Your task to perform on an android device: turn pop-ups on in chrome Image 0: 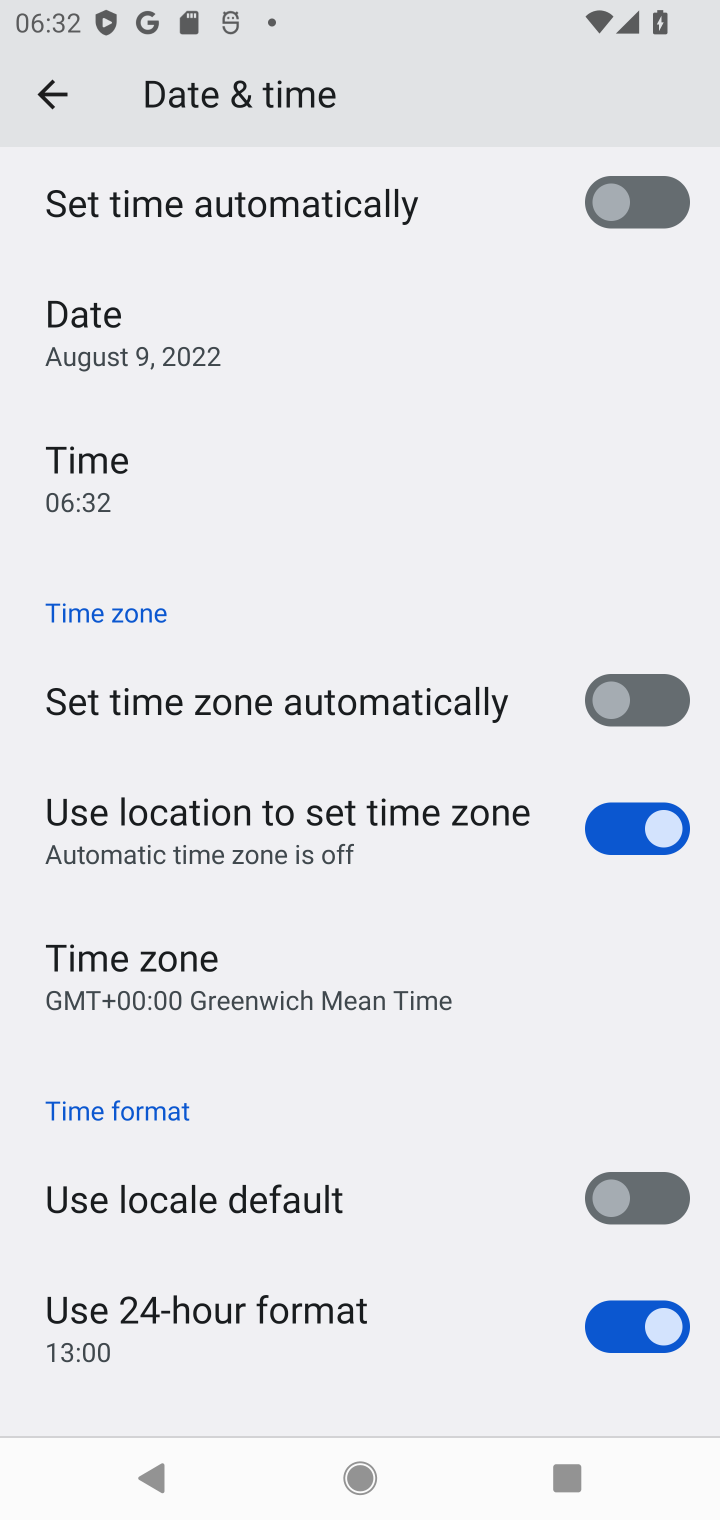
Step 0: press home button
Your task to perform on an android device: turn pop-ups on in chrome Image 1: 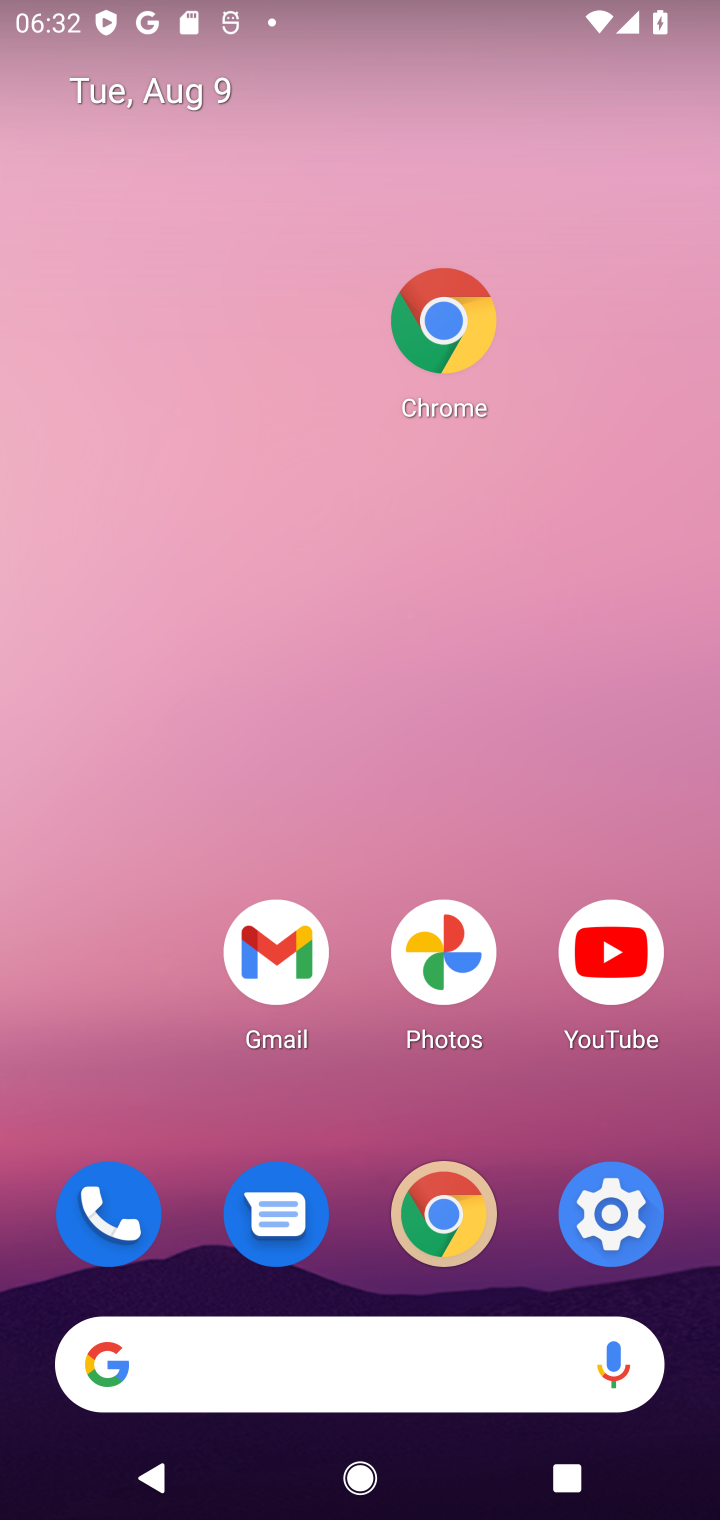
Step 1: click (444, 1205)
Your task to perform on an android device: turn pop-ups on in chrome Image 2: 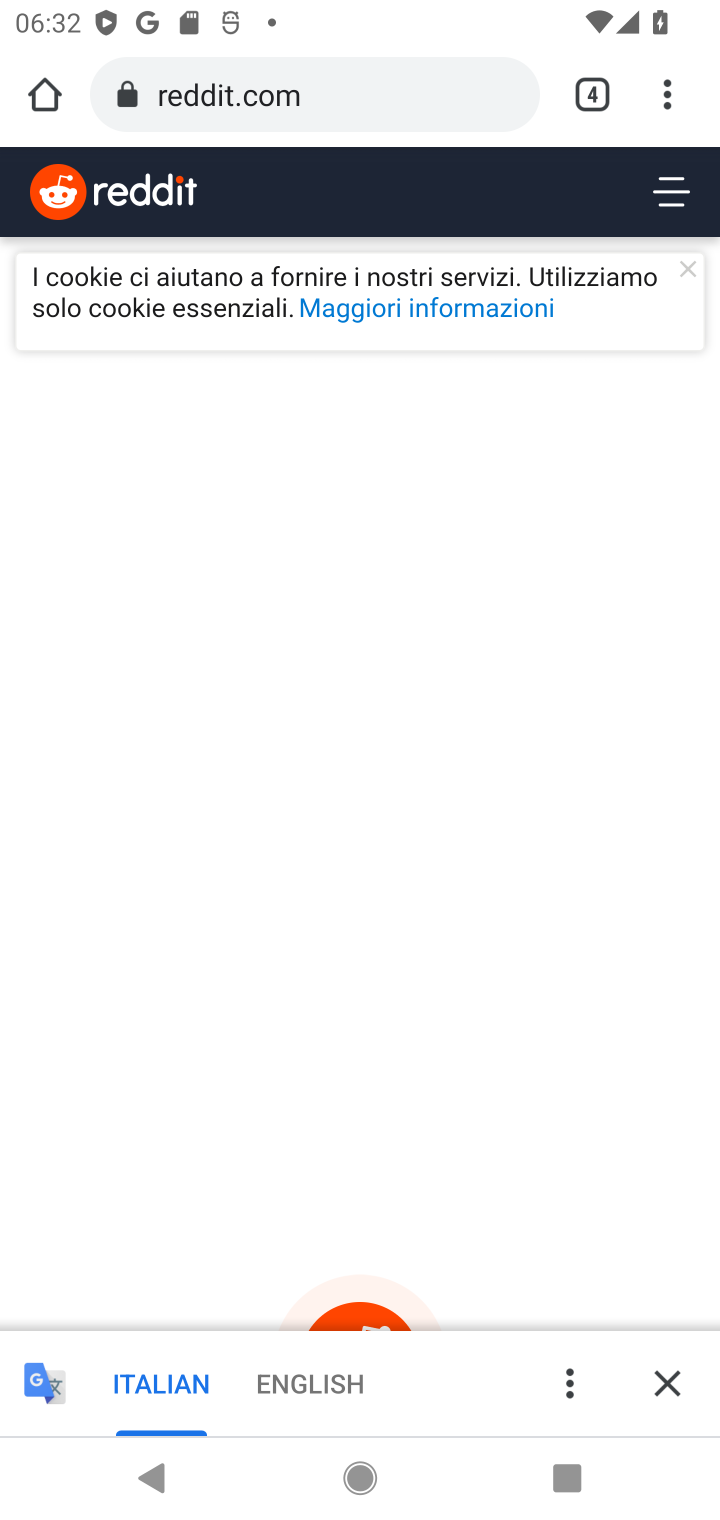
Step 2: click (664, 113)
Your task to perform on an android device: turn pop-ups on in chrome Image 3: 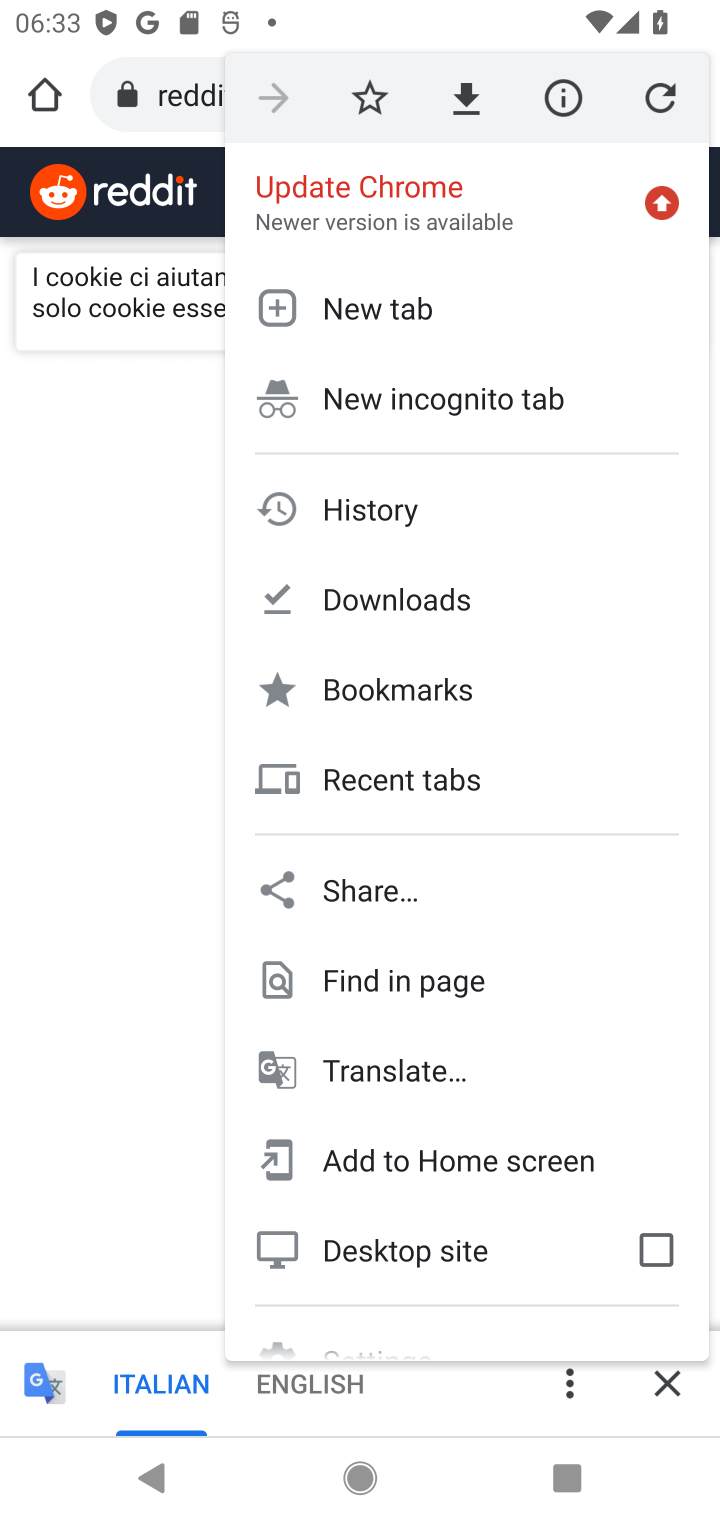
Step 3: drag from (383, 1066) to (361, 874)
Your task to perform on an android device: turn pop-ups on in chrome Image 4: 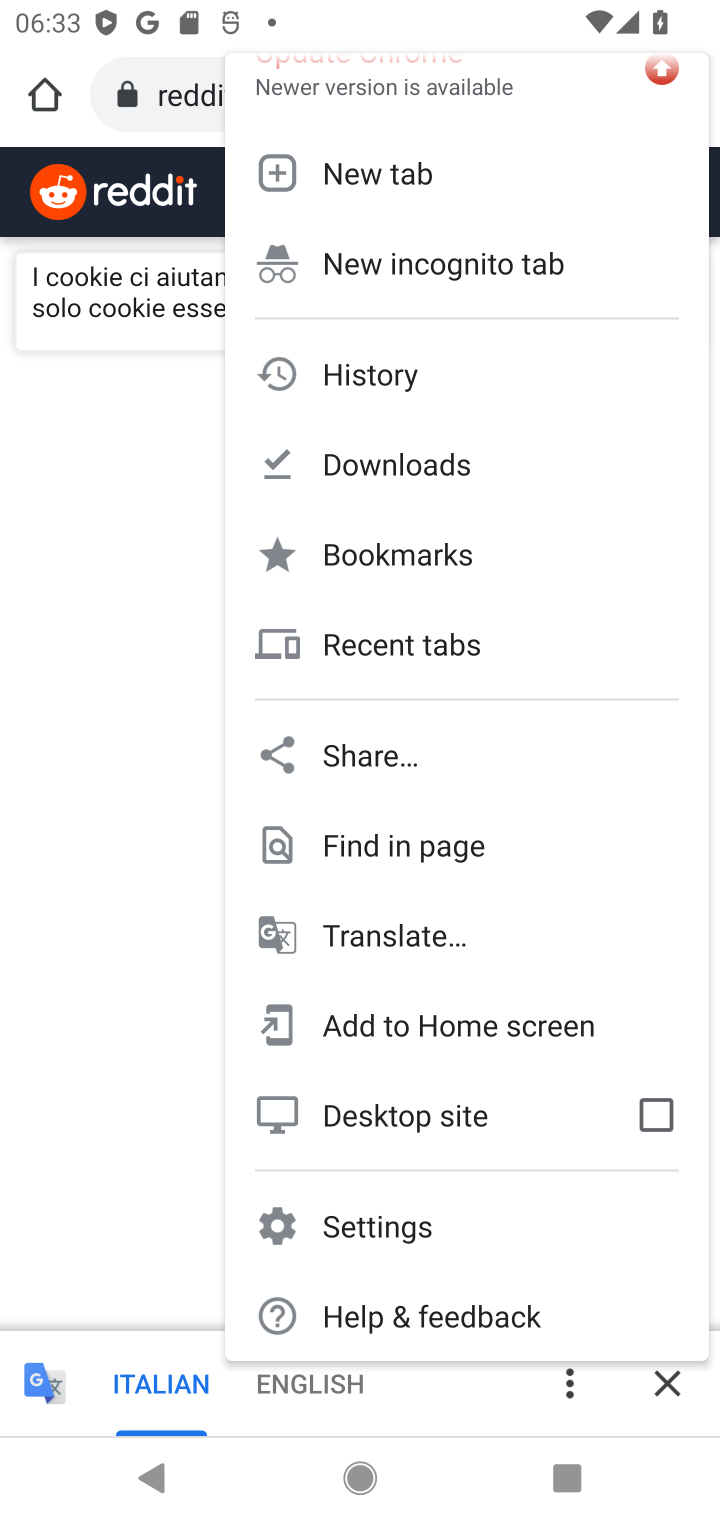
Step 4: click (392, 1222)
Your task to perform on an android device: turn pop-ups on in chrome Image 5: 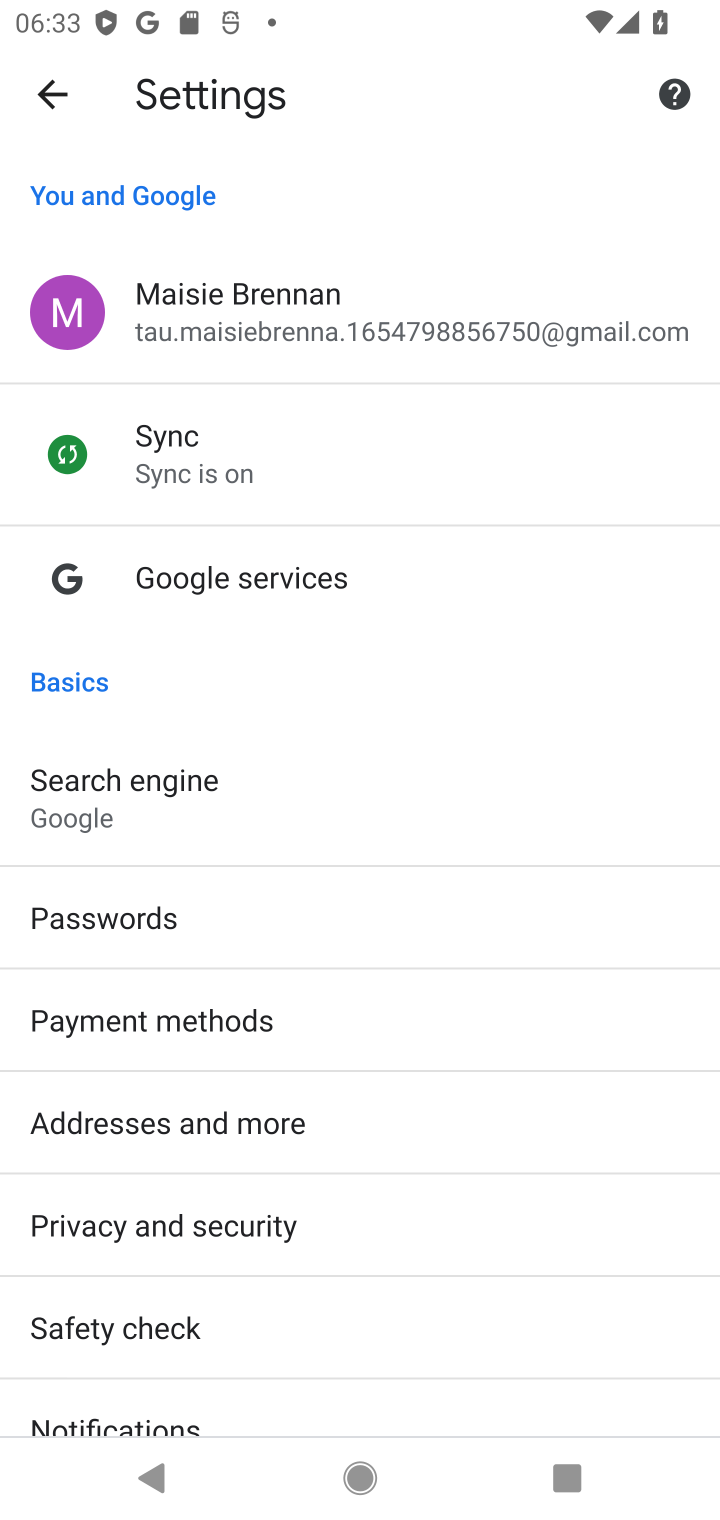
Step 5: drag from (184, 1233) to (184, 984)
Your task to perform on an android device: turn pop-ups on in chrome Image 6: 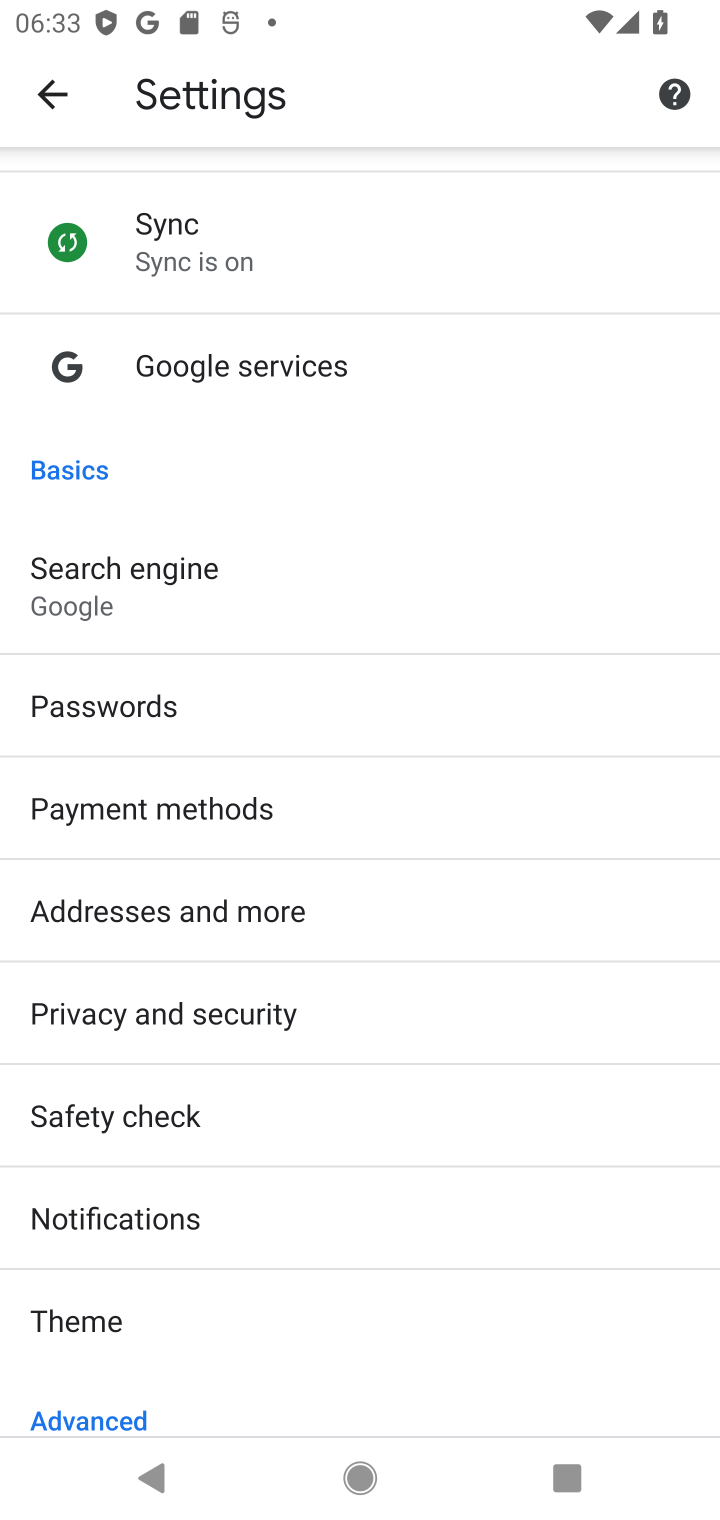
Step 6: drag from (138, 1287) to (223, 794)
Your task to perform on an android device: turn pop-ups on in chrome Image 7: 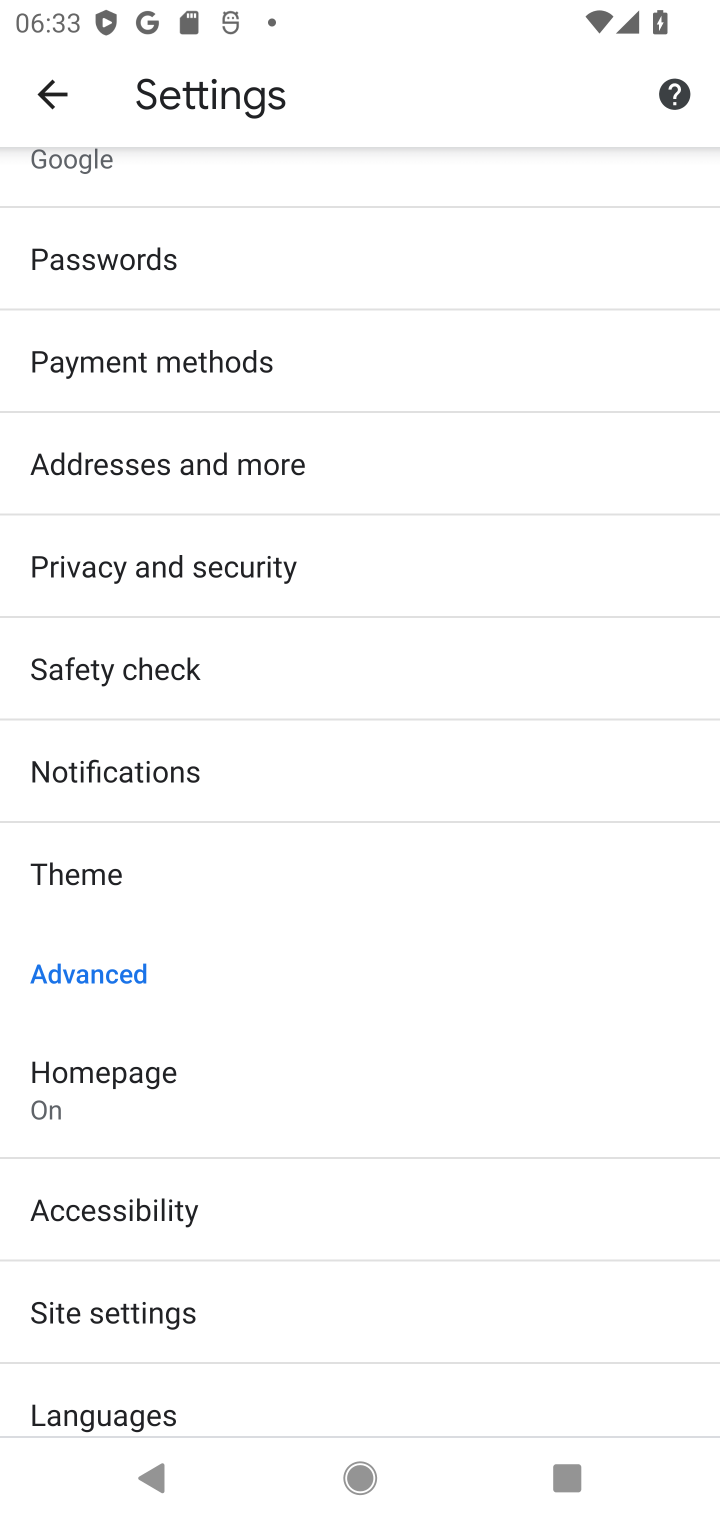
Step 7: click (144, 1226)
Your task to perform on an android device: turn pop-ups on in chrome Image 8: 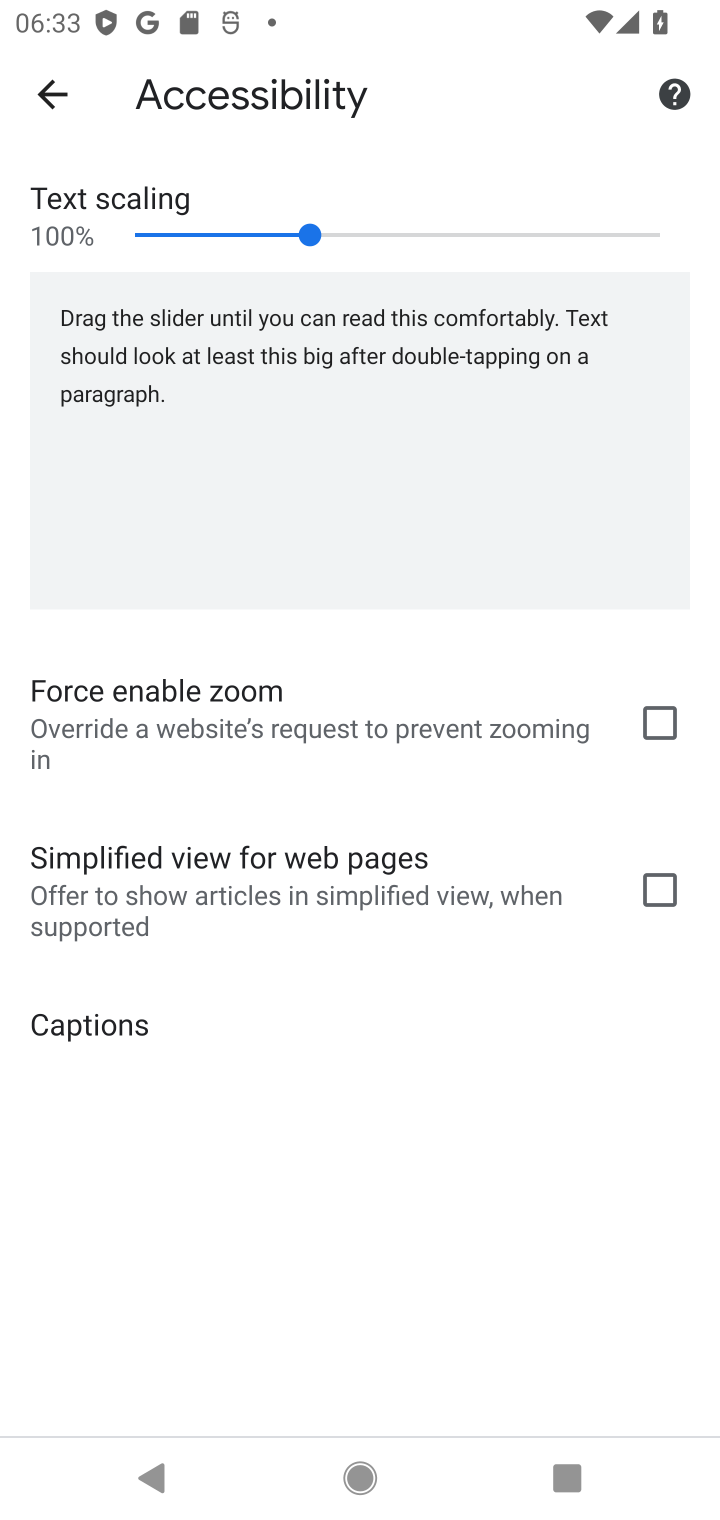
Step 8: drag from (246, 529) to (265, 889)
Your task to perform on an android device: turn pop-ups on in chrome Image 9: 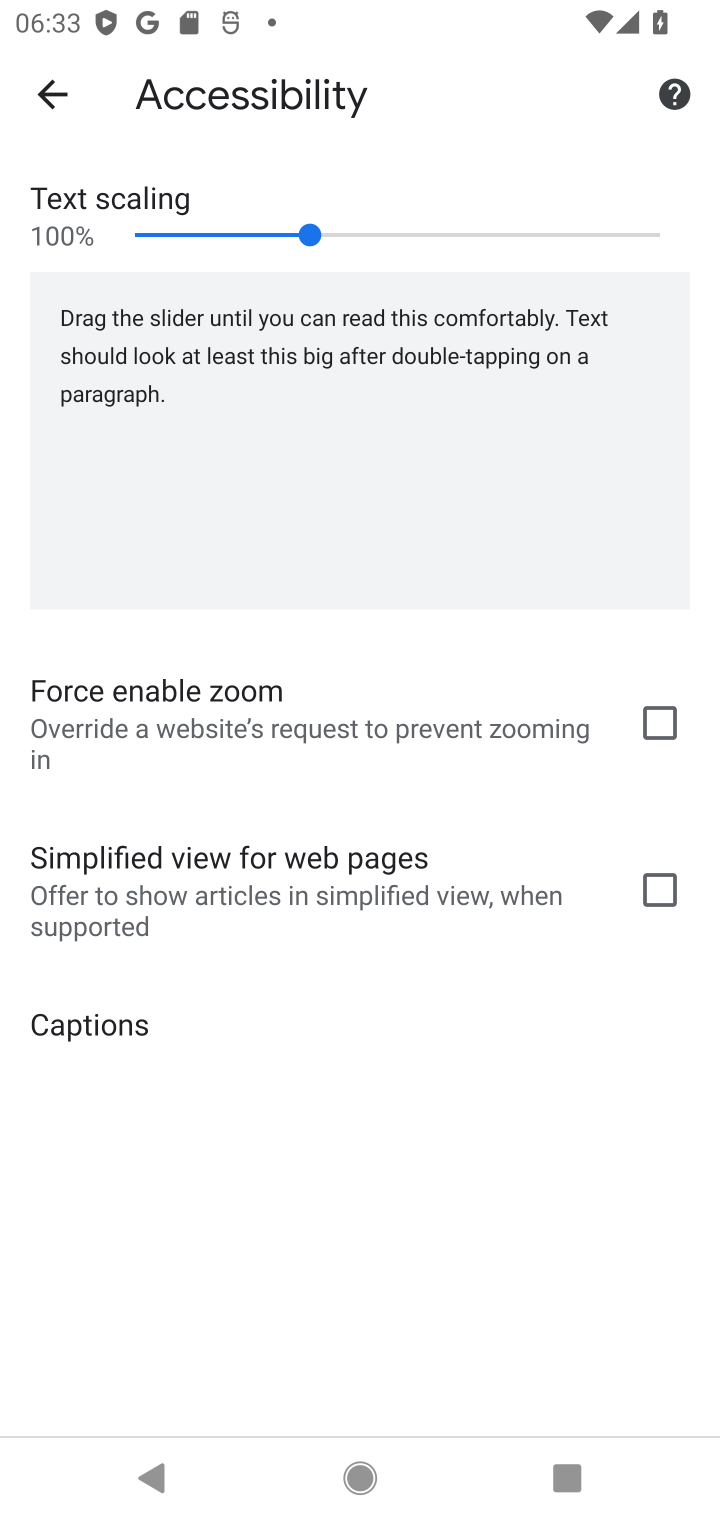
Step 9: click (76, 98)
Your task to perform on an android device: turn pop-ups on in chrome Image 10: 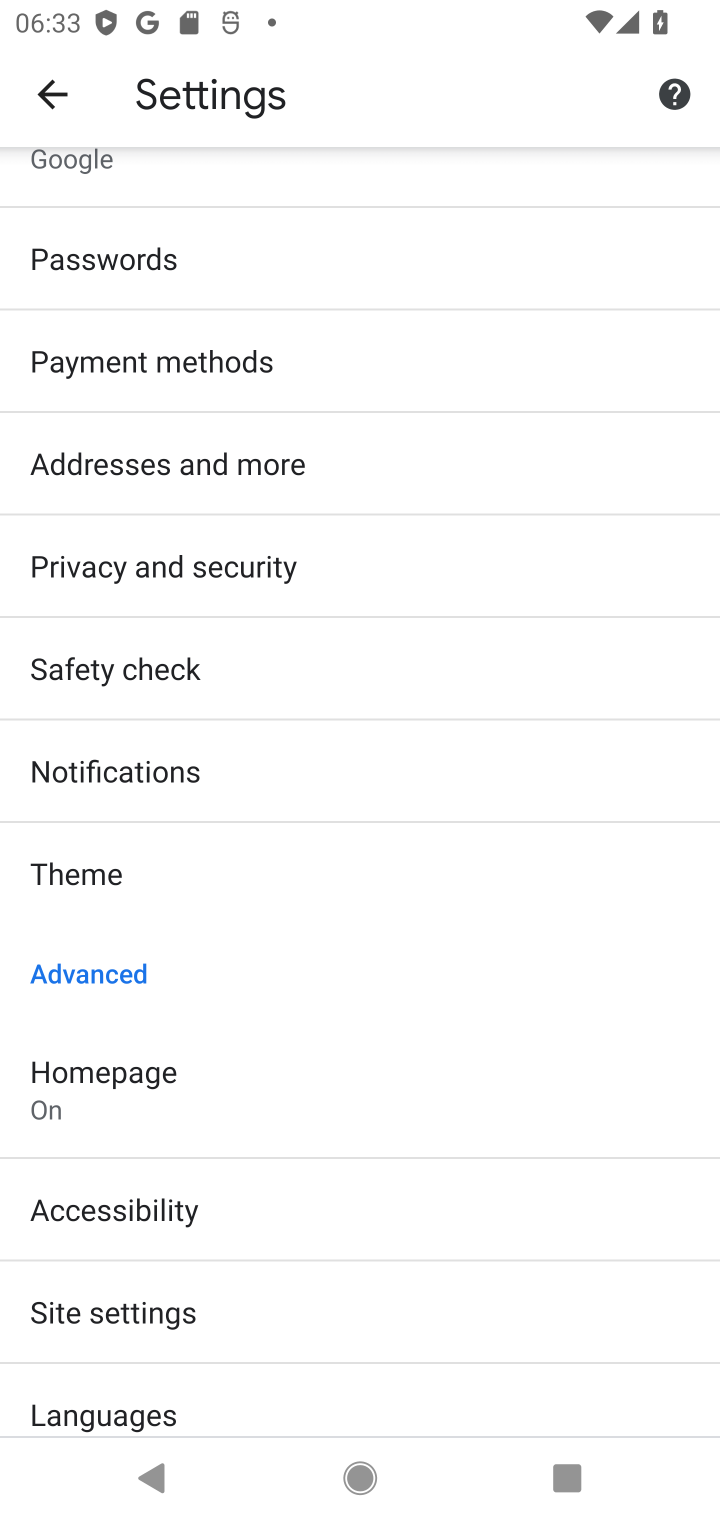
Step 10: click (124, 1304)
Your task to perform on an android device: turn pop-ups on in chrome Image 11: 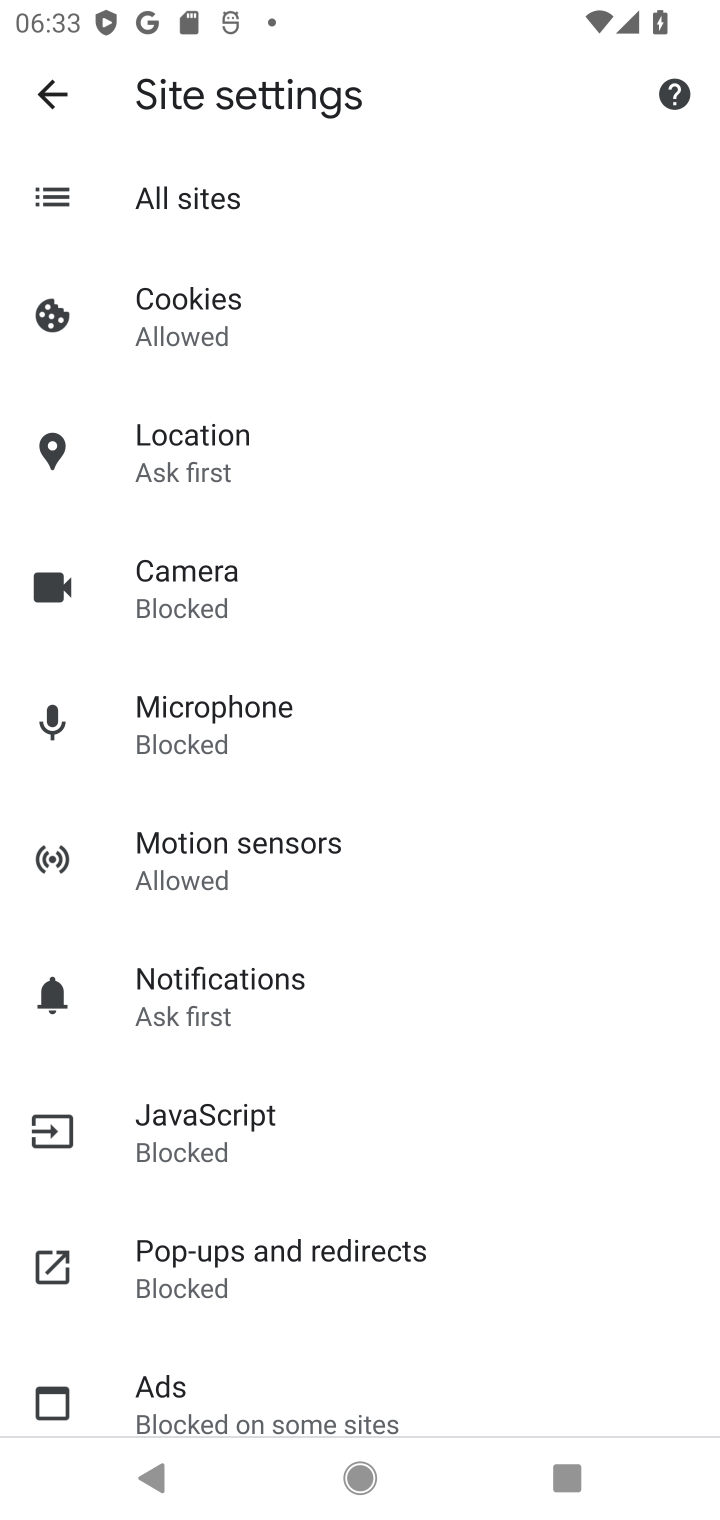
Step 11: click (233, 1270)
Your task to perform on an android device: turn pop-ups on in chrome Image 12: 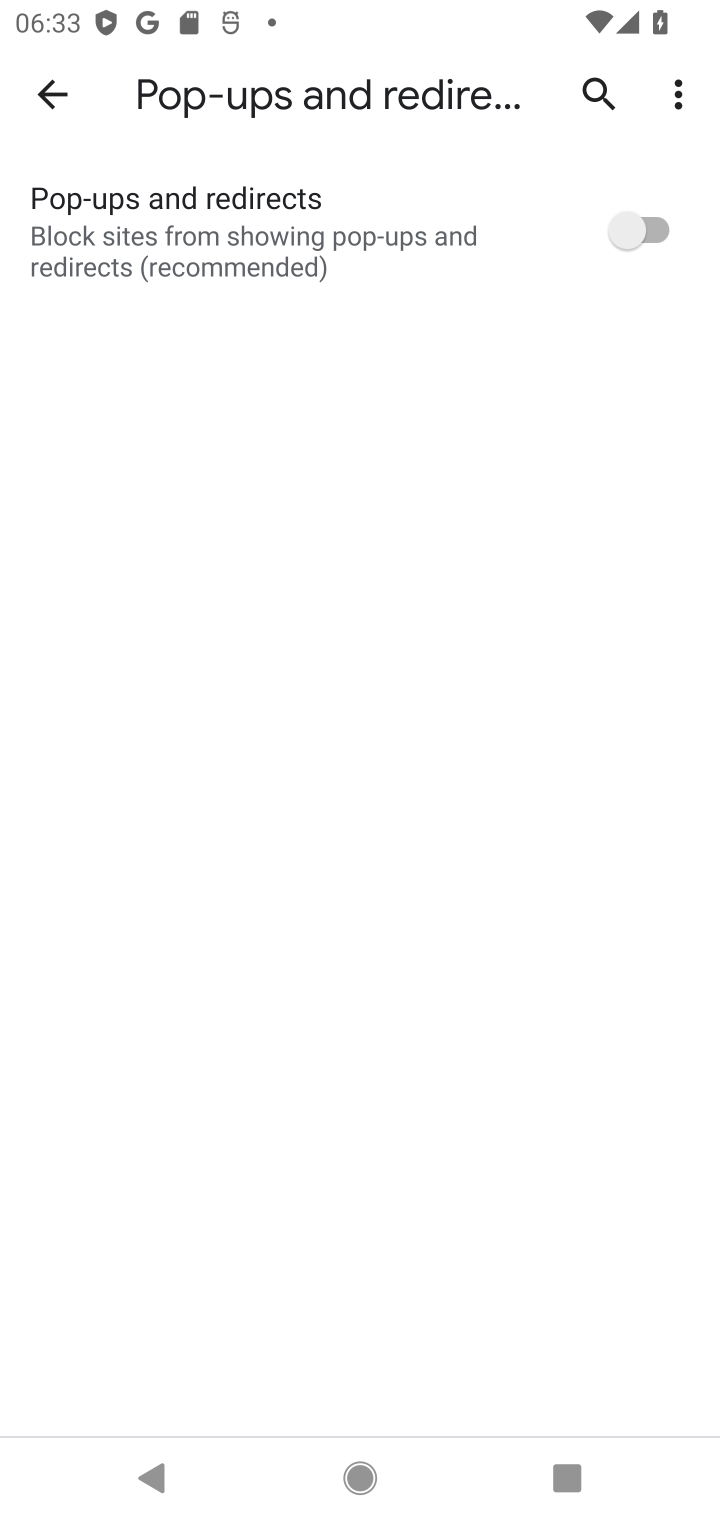
Step 12: click (637, 238)
Your task to perform on an android device: turn pop-ups on in chrome Image 13: 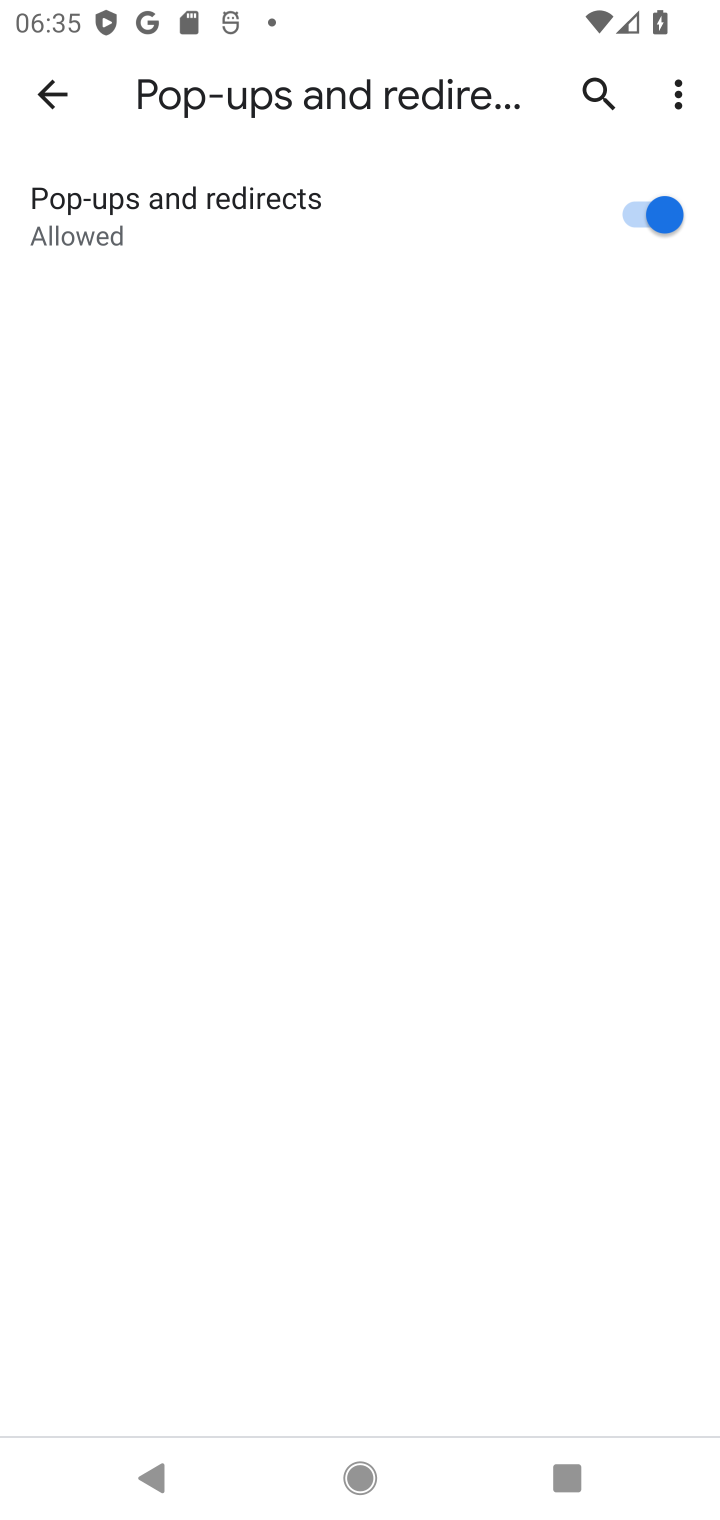
Step 13: task complete